Your task to perform on an android device: move an email to a new category in the gmail app Image 0: 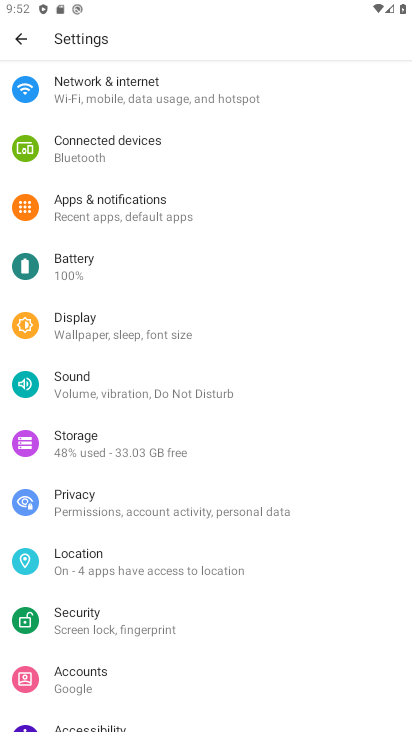
Step 0: press home button
Your task to perform on an android device: move an email to a new category in the gmail app Image 1: 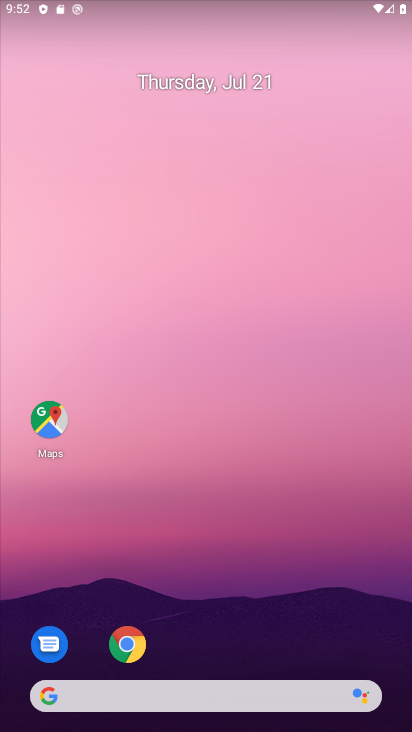
Step 1: drag from (210, 642) to (174, 75)
Your task to perform on an android device: move an email to a new category in the gmail app Image 2: 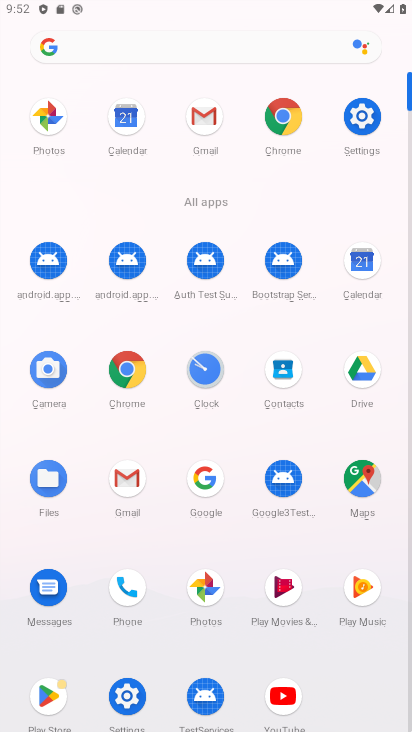
Step 2: click (128, 494)
Your task to perform on an android device: move an email to a new category in the gmail app Image 3: 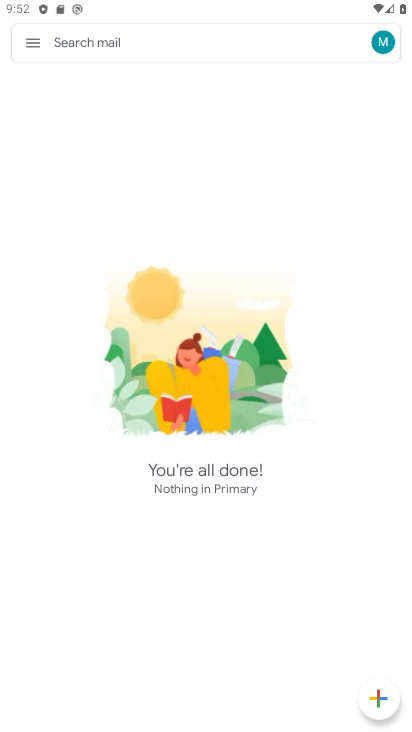
Step 3: task complete